Your task to perform on an android device: turn off priority inbox in the gmail app Image 0: 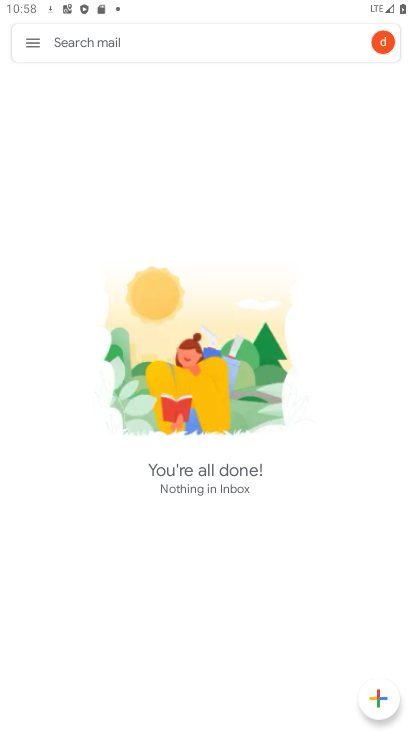
Step 0: click (38, 43)
Your task to perform on an android device: turn off priority inbox in the gmail app Image 1: 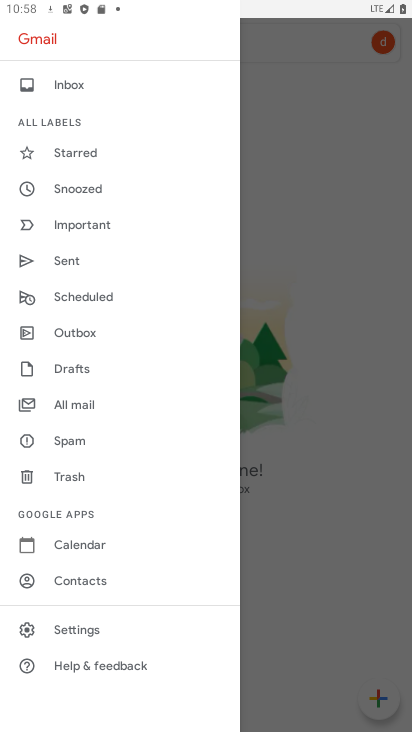
Step 1: click (82, 631)
Your task to perform on an android device: turn off priority inbox in the gmail app Image 2: 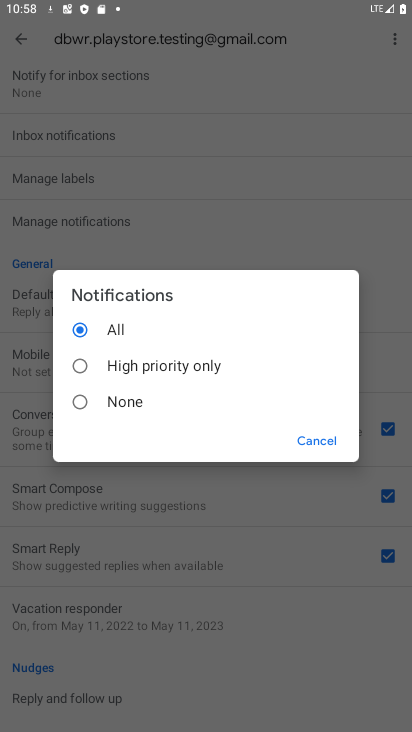
Step 2: click (311, 449)
Your task to perform on an android device: turn off priority inbox in the gmail app Image 3: 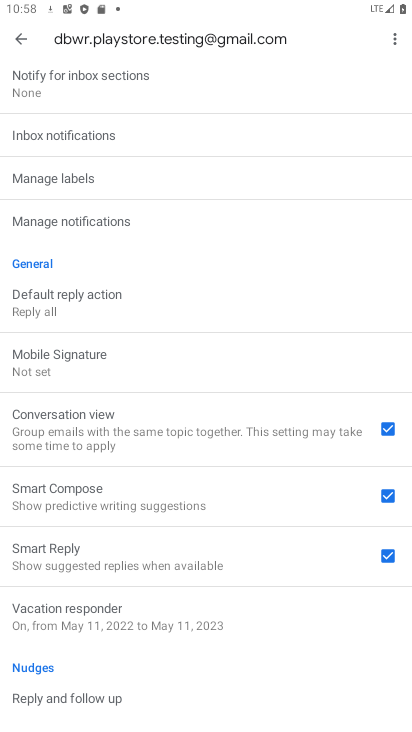
Step 3: drag from (99, 143) to (77, 317)
Your task to perform on an android device: turn off priority inbox in the gmail app Image 4: 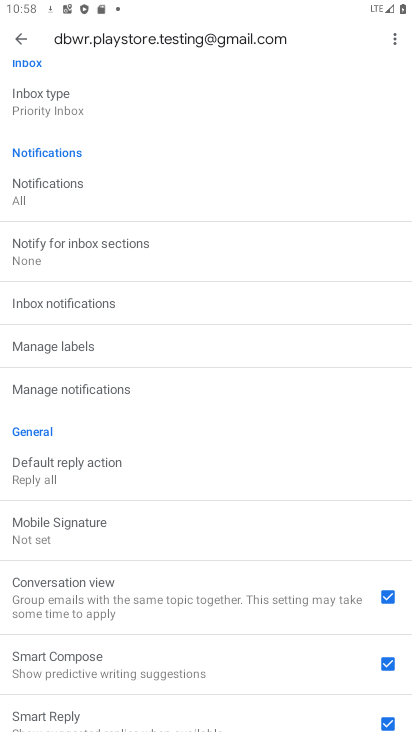
Step 4: click (76, 120)
Your task to perform on an android device: turn off priority inbox in the gmail app Image 5: 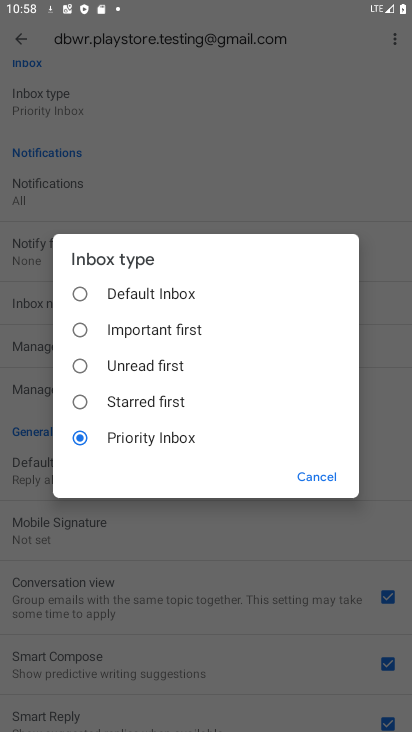
Step 5: click (113, 292)
Your task to perform on an android device: turn off priority inbox in the gmail app Image 6: 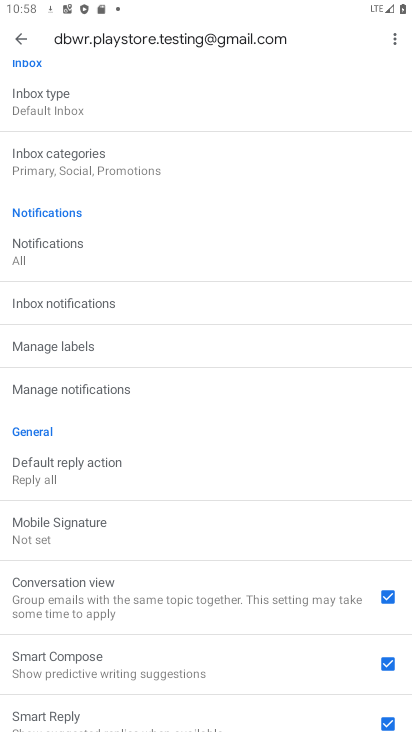
Step 6: task complete